Your task to perform on an android device: open wifi settings Image 0: 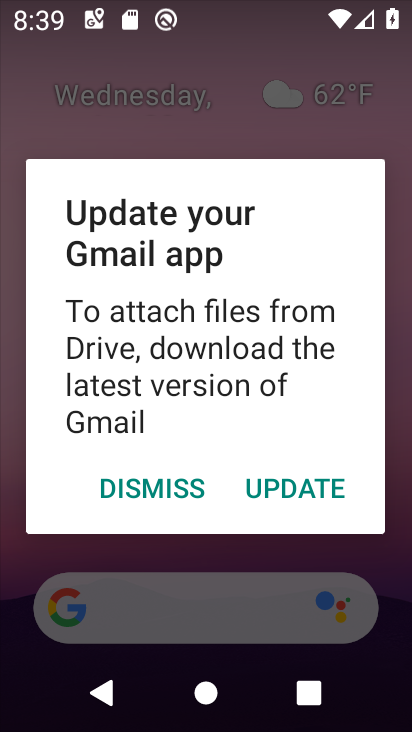
Step 0: press home button
Your task to perform on an android device: open wifi settings Image 1: 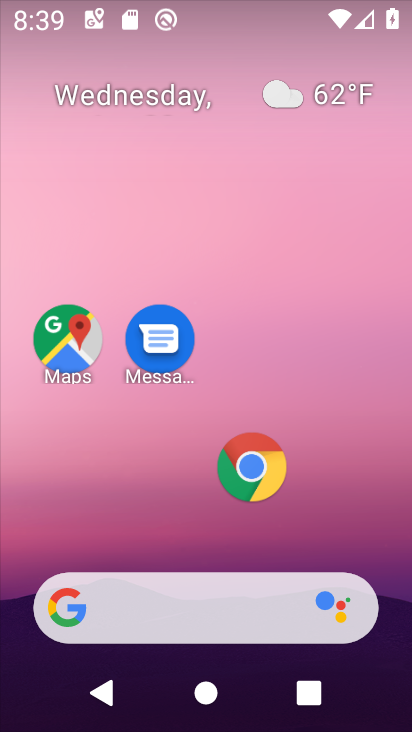
Step 1: drag from (194, 452) to (172, 146)
Your task to perform on an android device: open wifi settings Image 2: 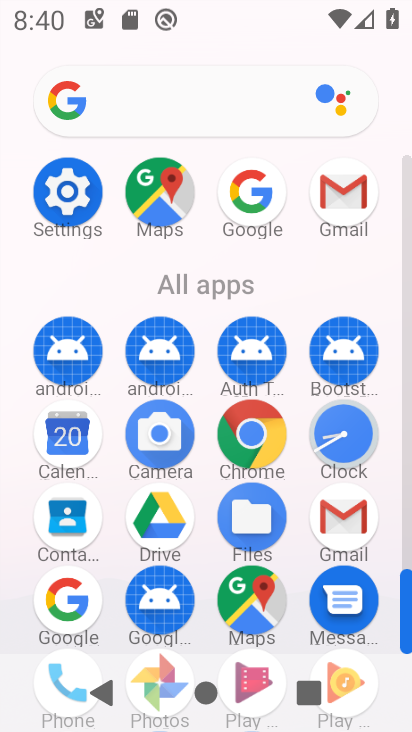
Step 2: click (56, 196)
Your task to perform on an android device: open wifi settings Image 3: 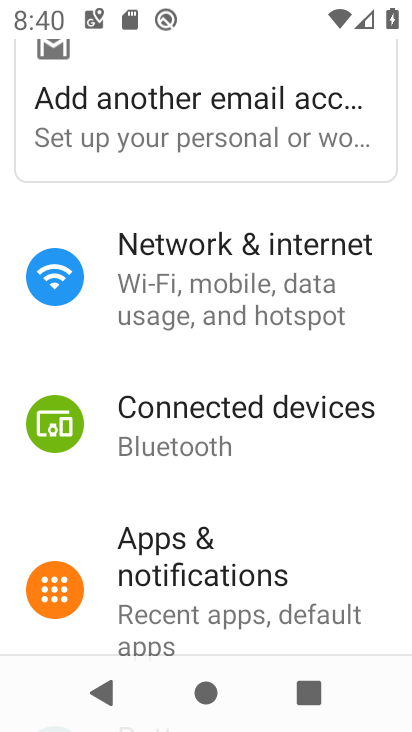
Step 3: click (202, 278)
Your task to perform on an android device: open wifi settings Image 4: 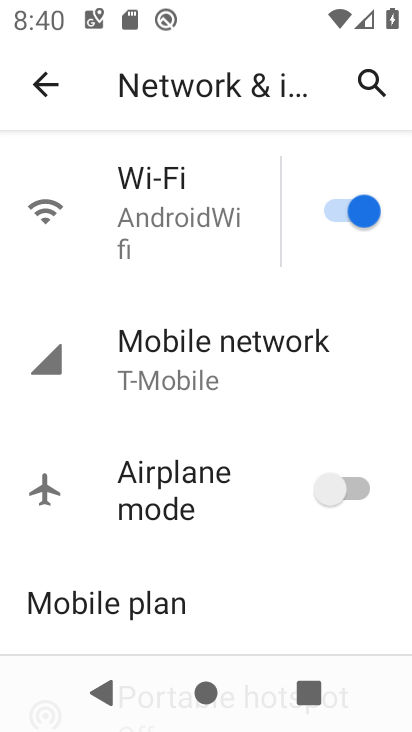
Step 4: click (136, 210)
Your task to perform on an android device: open wifi settings Image 5: 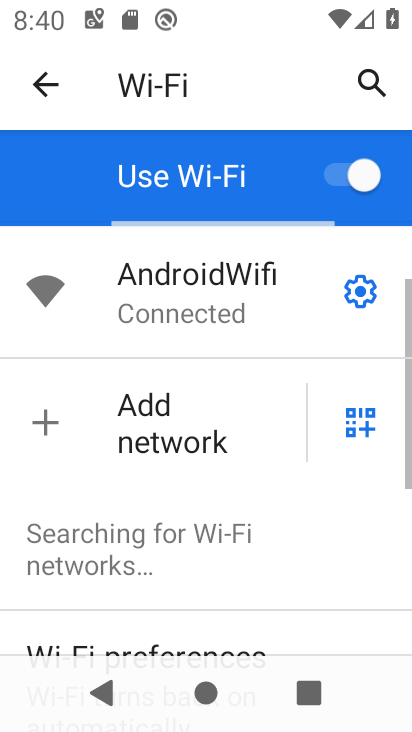
Step 5: click (361, 293)
Your task to perform on an android device: open wifi settings Image 6: 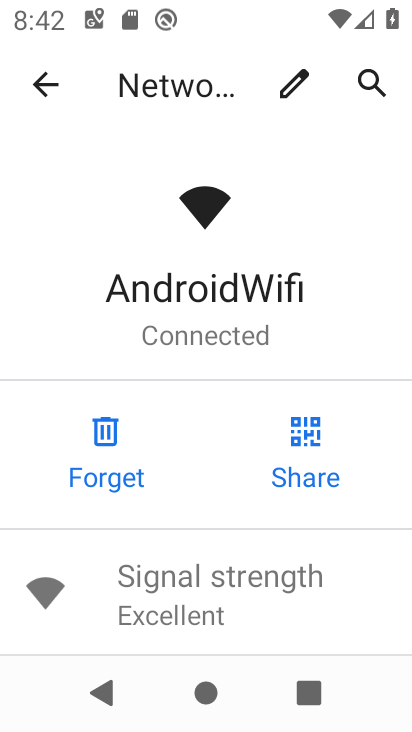
Step 6: task complete